Your task to perform on an android device: Clear all items from cart on bestbuy. Add jbl flip 4 to the cart on bestbuy, then select checkout. Image 0: 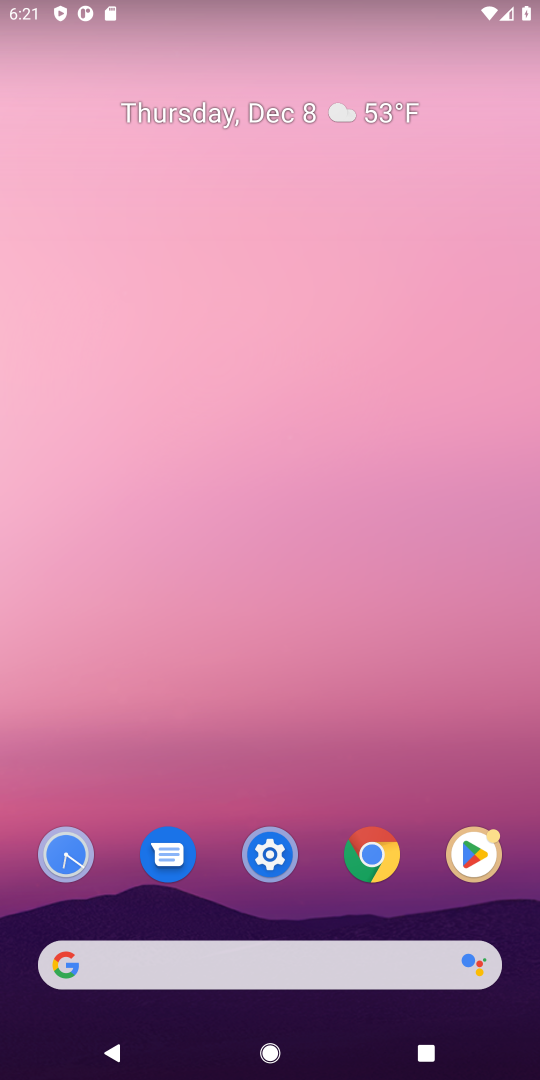
Step 0: press home button
Your task to perform on an android device: Clear all items from cart on bestbuy. Add jbl flip 4 to the cart on bestbuy, then select checkout. Image 1: 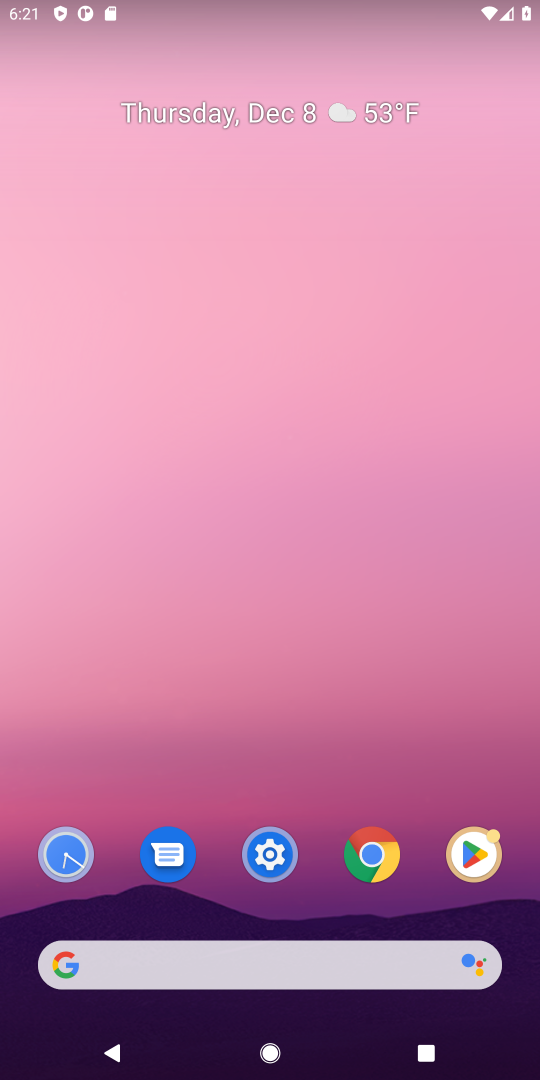
Step 1: click (93, 965)
Your task to perform on an android device: Clear all items from cart on bestbuy. Add jbl flip 4 to the cart on bestbuy, then select checkout. Image 2: 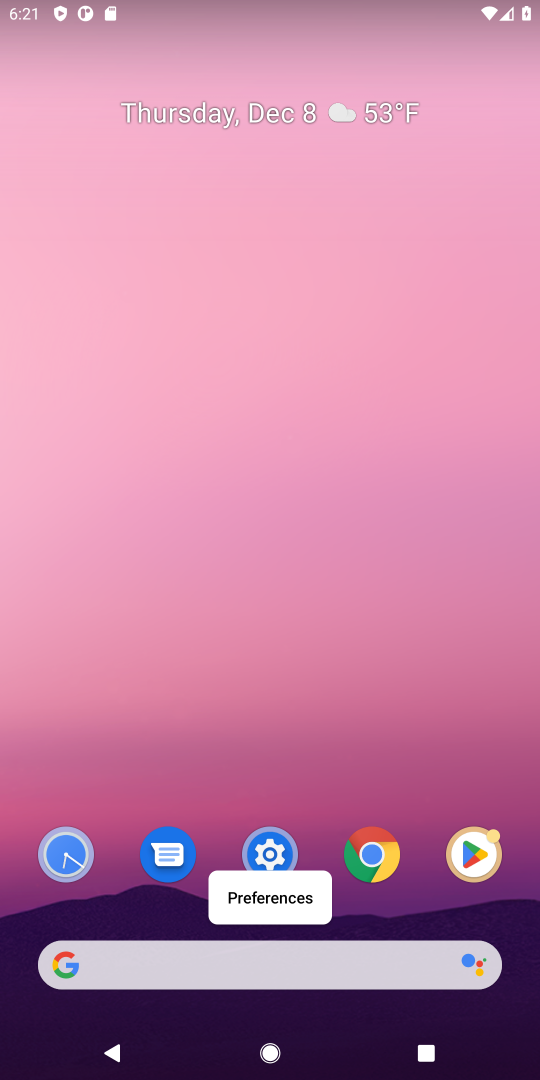
Step 2: click (99, 964)
Your task to perform on an android device: Clear all items from cart on bestbuy. Add jbl flip 4 to the cart on bestbuy, then select checkout. Image 3: 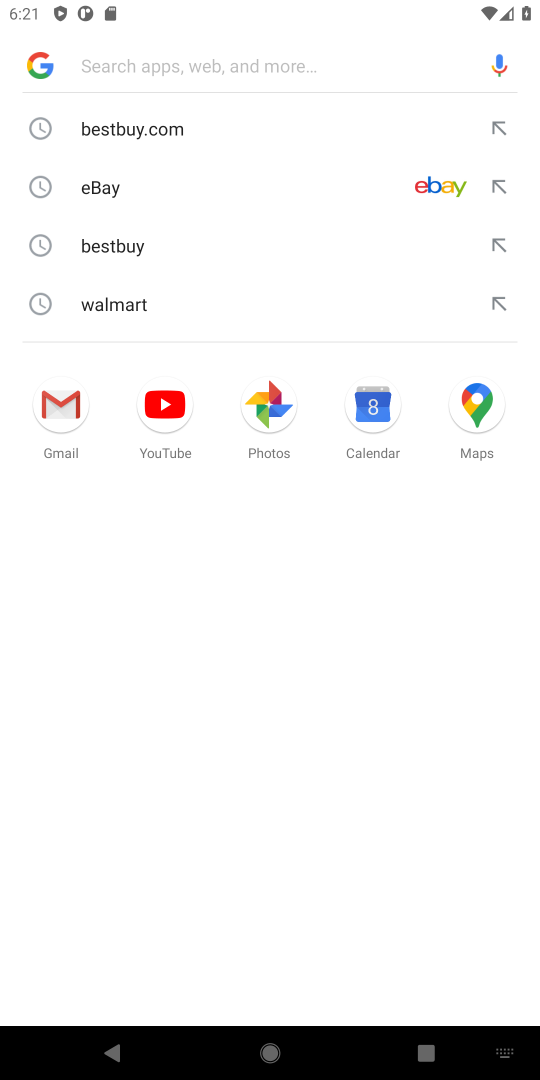
Step 3: type "bestbuy"
Your task to perform on an android device: Clear all items from cart on bestbuy. Add jbl flip 4 to the cart on bestbuy, then select checkout. Image 4: 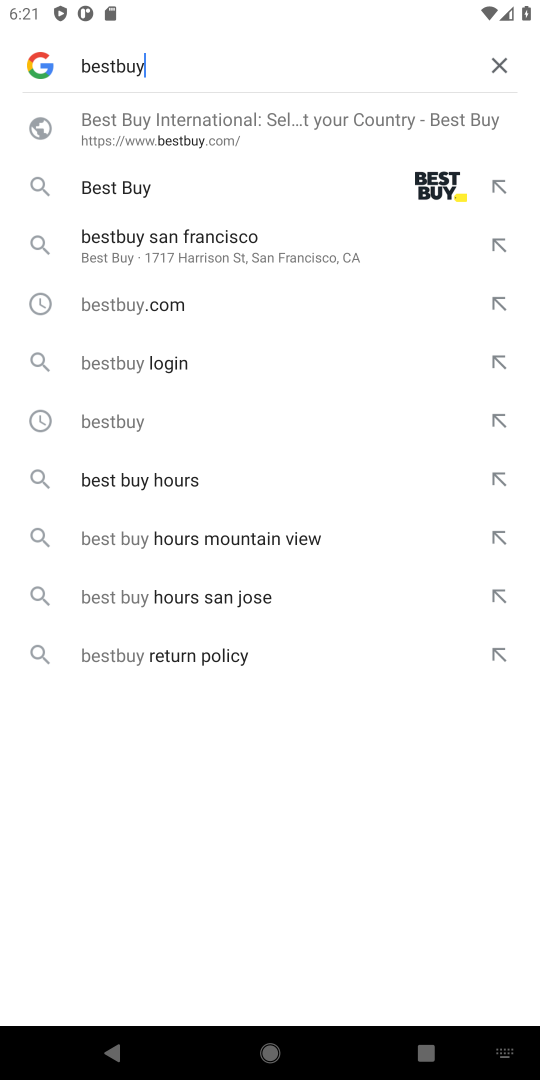
Step 4: press enter
Your task to perform on an android device: Clear all items from cart on bestbuy. Add jbl flip 4 to the cart on bestbuy, then select checkout. Image 5: 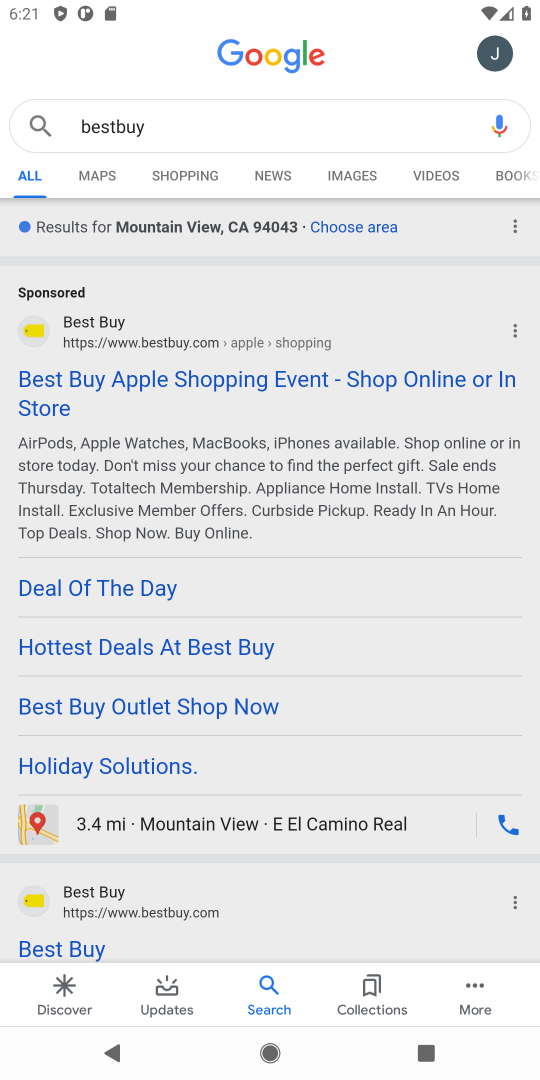
Step 5: click (263, 384)
Your task to perform on an android device: Clear all items from cart on bestbuy. Add jbl flip 4 to the cart on bestbuy, then select checkout. Image 6: 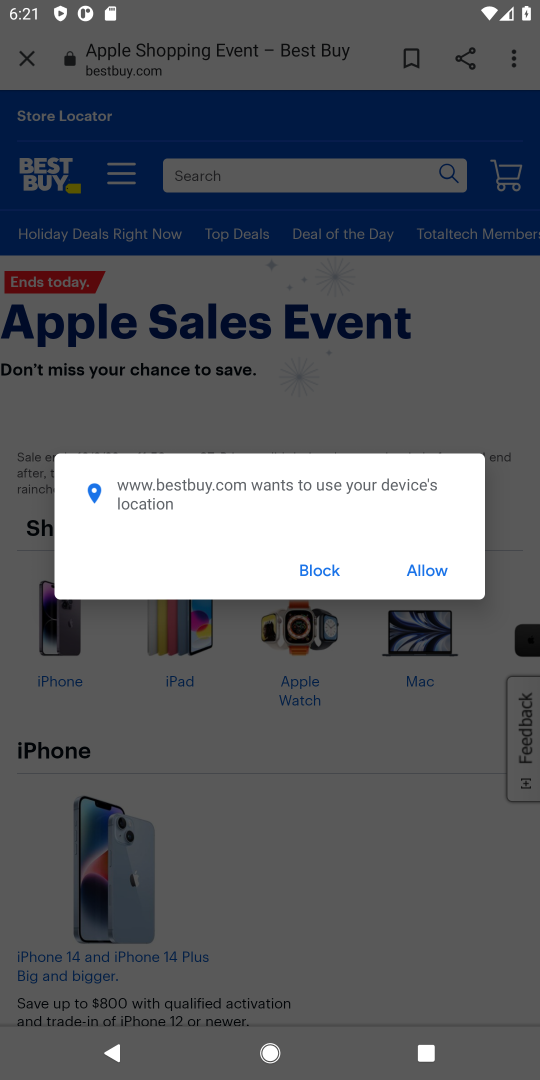
Step 6: click (313, 566)
Your task to perform on an android device: Clear all items from cart on bestbuy. Add jbl flip 4 to the cart on bestbuy, then select checkout. Image 7: 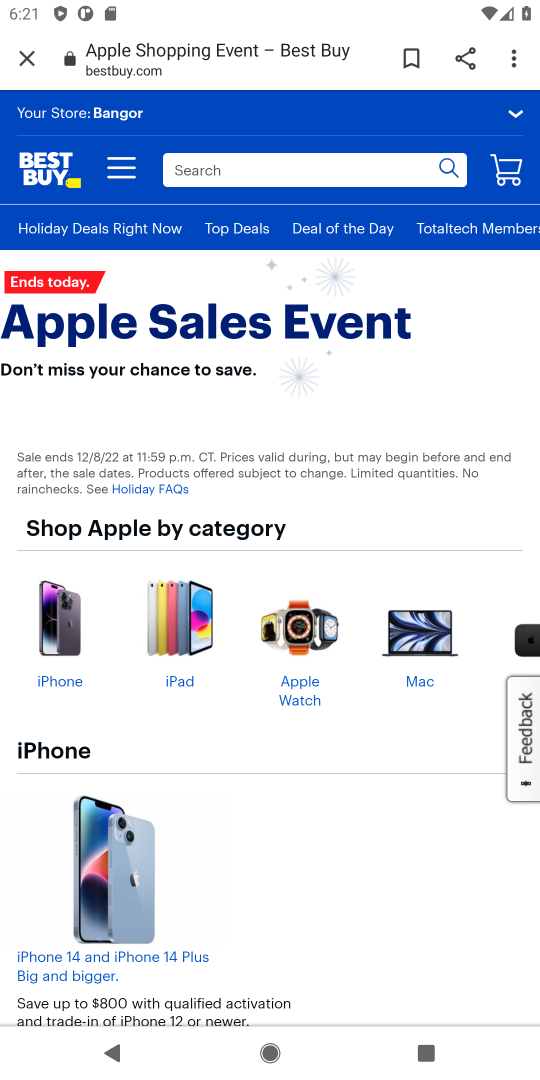
Step 7: click (507, 176)
Your task to perform on an android device: Clear all items from cart on bestbuy. Add jbl flip 4 to the cart on bestbuy, then select checkout. Image 8: 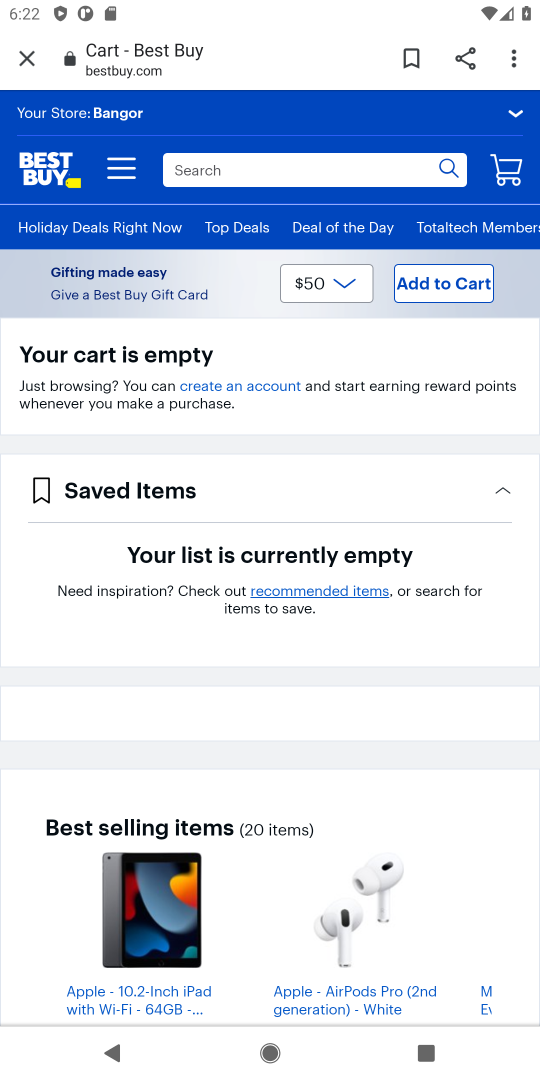
Step 8: click (193, 175)
Your task to perform on an android device: Clear all items from cart on bestbuy. Add jbl flip 4 to the cart on bestbuy, then select checkout. Image 9: 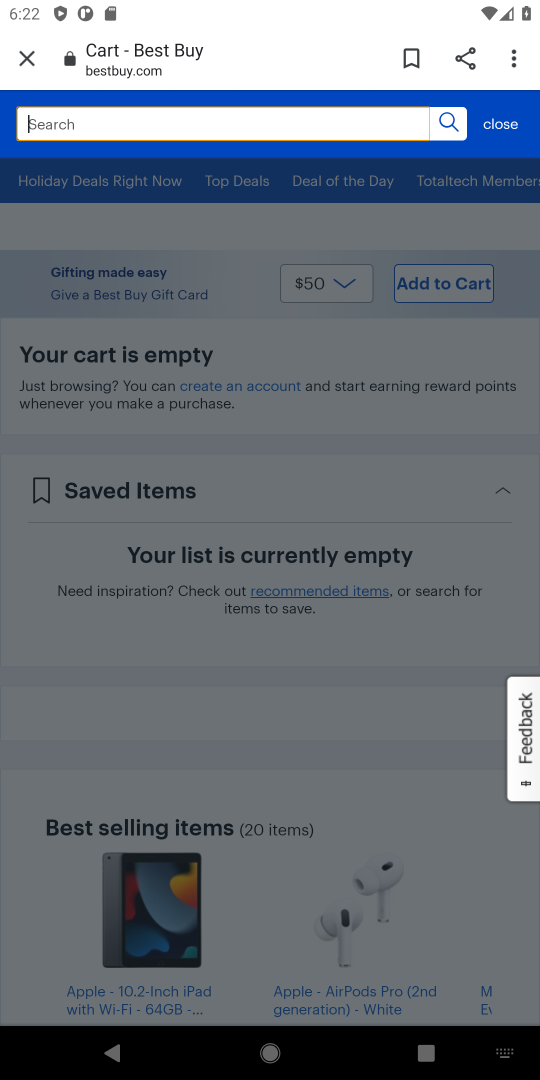
Step 9: type "jbl flip 4"
Your task to perform on an android device: Clear all items from cart on bestbuy. Add jbl flip 4 to the cart on bestbuy, then select checkout. Image 10: 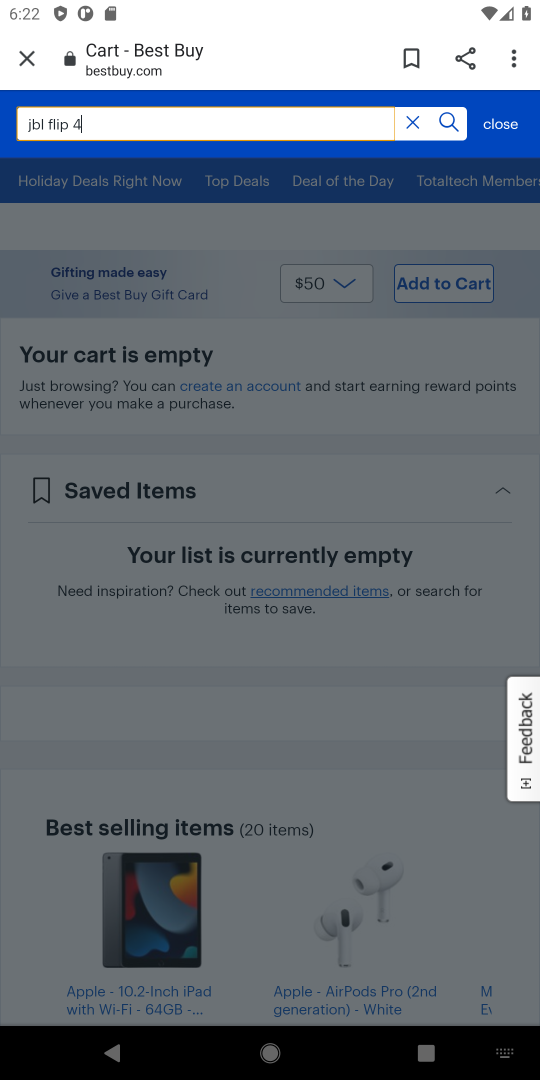
Step 10: press enter
Your task to perform on an android device: Clear all items from cart on bestbuy. Add jbl flip 4 to the cart on bestbuy, then select checkout. Image 11: 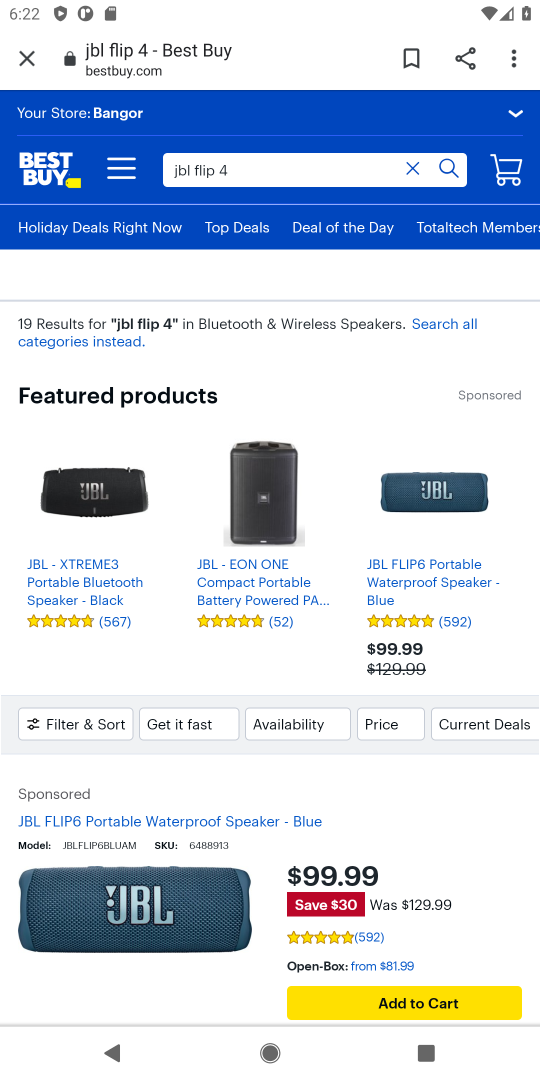
Step 11: task complete